Your task to perform on an android device: Search for Mexican restaurants on Maps Image 0: 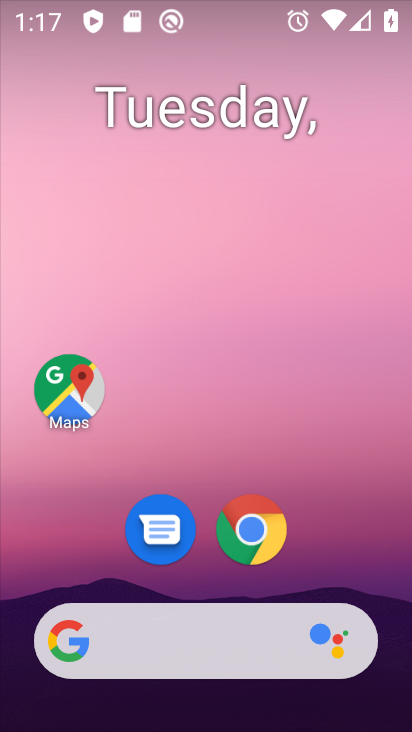
Step 0: drag from (391, 594) to (205, 67)
Your task to perform on an android device: Search for Mexican restaurants on Maps Image 1: 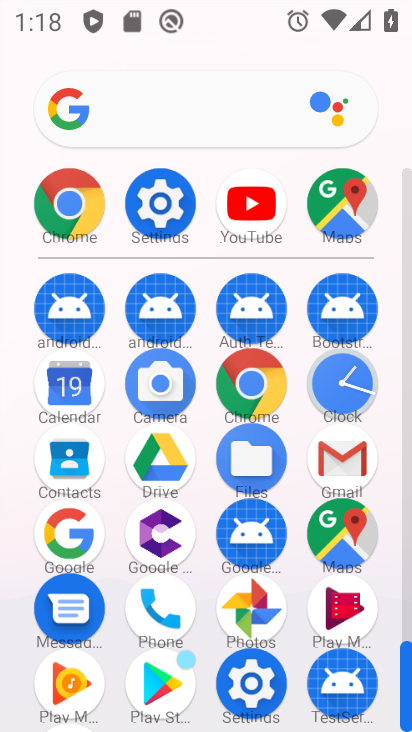
Step 1: click (328, 542)
Your task to perform on an android device: Search for Mexican restaurants on Maps Image 2: 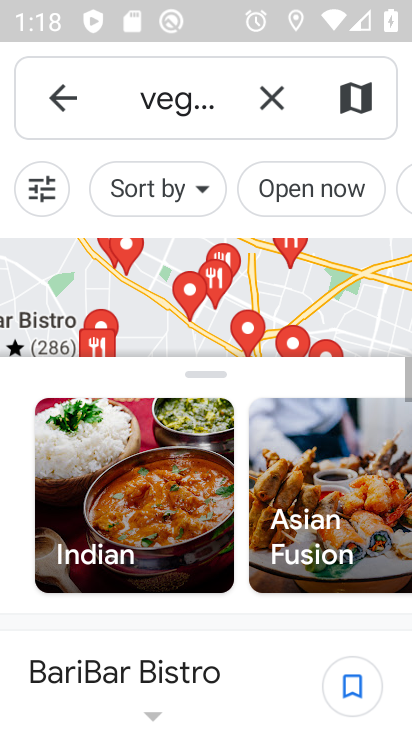
Step 2: click (286, 102)
Your task to perform on an android device: Search for Mexican restaurants on Maps Image 3: 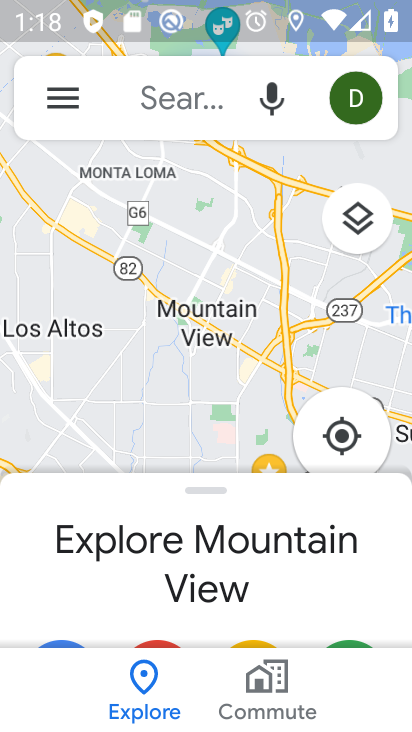
Step 3: click (136, 96)
Your task to perform on an android device: Search for Mexican restaurants on Maps Image 4: 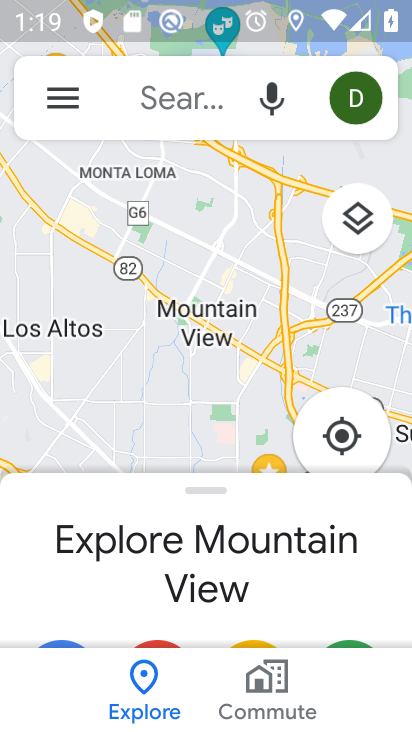
Step 4: click (208, 91)
Your task to perform on an android device: Search for Mexican restaurants on Maps Image 5: 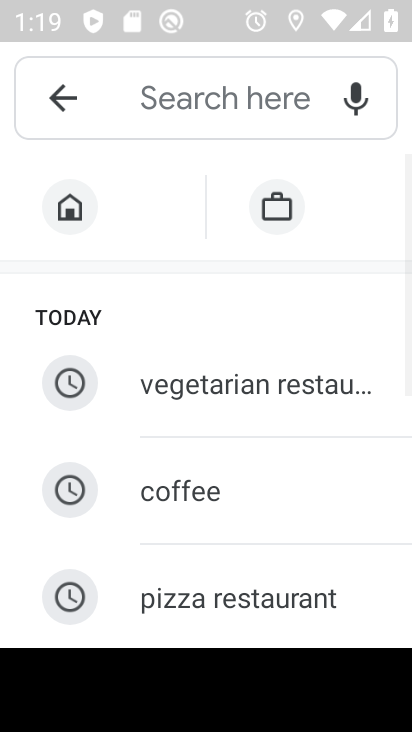
Step 5: drag from (230, 567) to (313, 243)
Your task to perform on an android device: Search for Mexican restaurants on Maps Image 6: 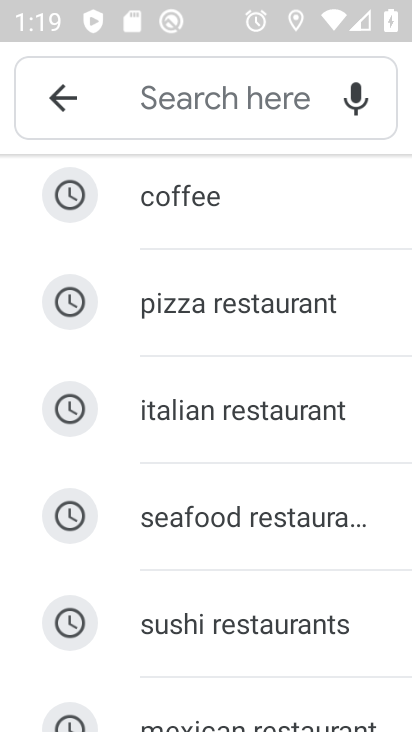
Step 6: drag from (165, 651) to (234, 279)
Your task to perform on an android device: Search for Mexican restaurants on Maps Image 7: 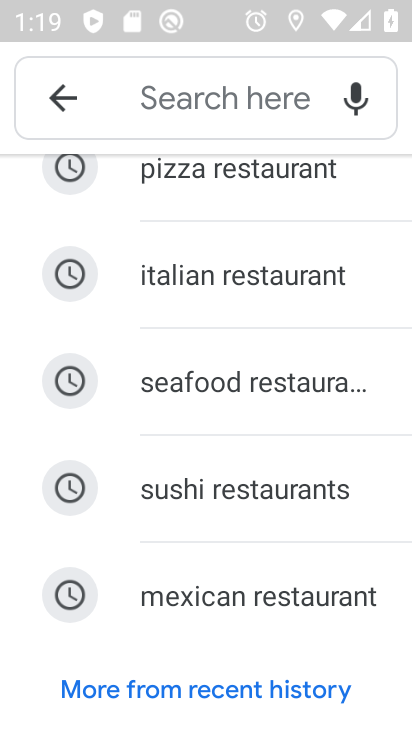
Step 7: click (222, 585)
Your task to perform on an android device: Search for Mexican restaurants on Maps Image 8: 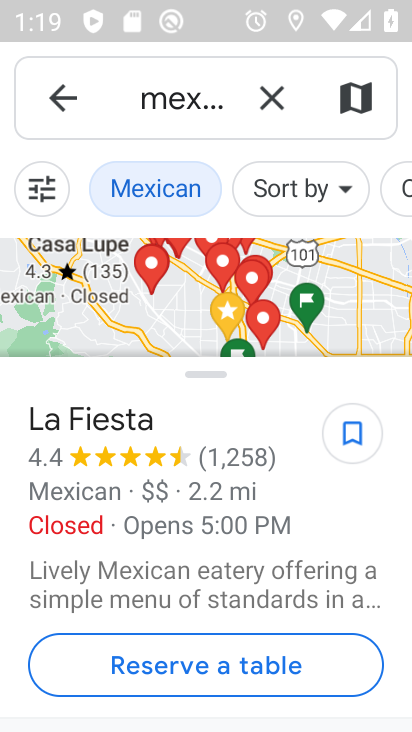
Step 8: task complete